Your task to perform on an android device: Go to sound settings Image 0: 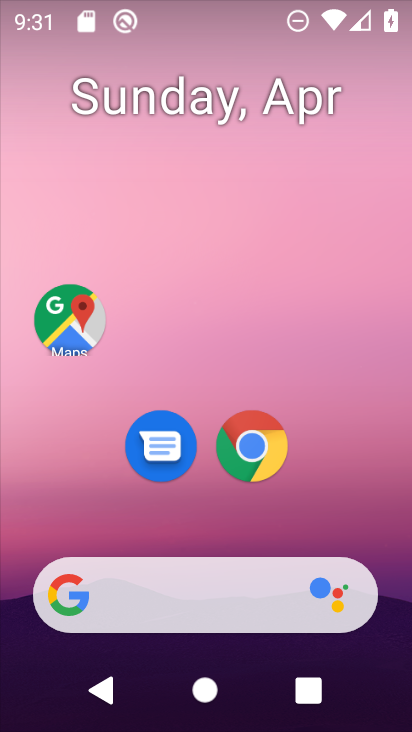
Step 0: drag from (230, 521) to (252, 116)
Your task to perform on an android device: Go to sound settings Image 1: 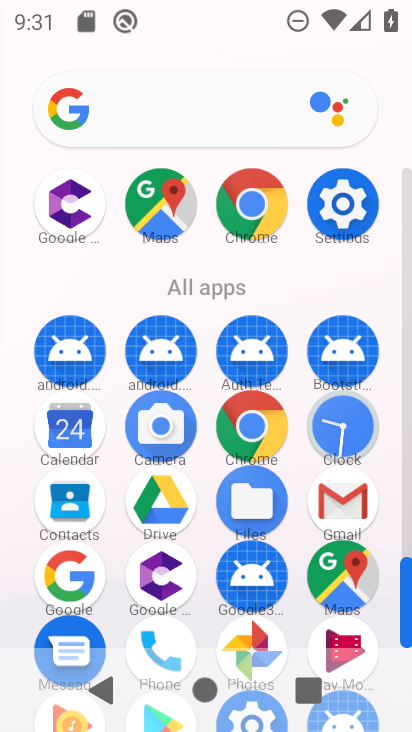
Step 1: click (354, 200)
Your task to perform on an android device: Go to sound settings Image 2: 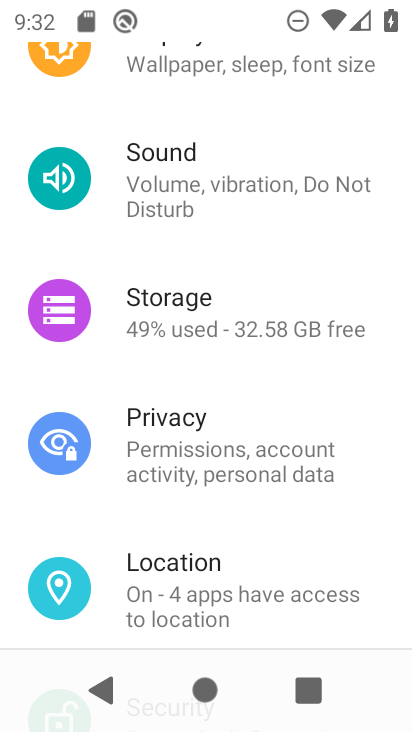
Step 2: click (204, 202)
Your task to perform on an android device: Go to sound settings Image 3: 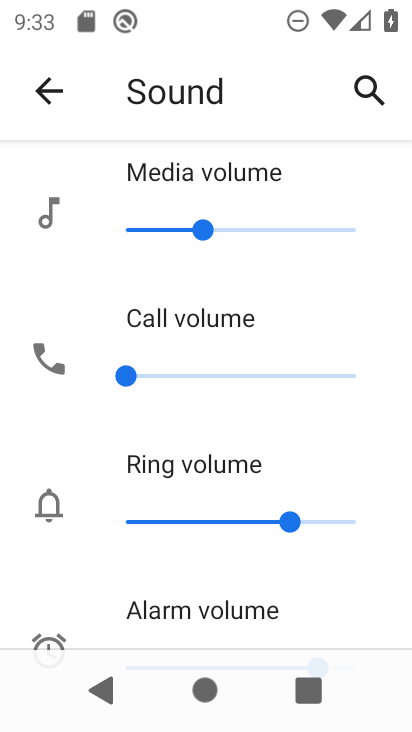
Step 3: task complete